Your task to perform on an android device: Open Chrome and go to settings Image 0: 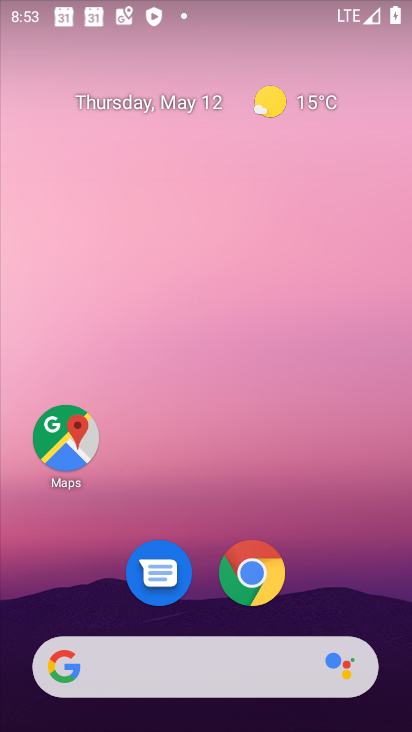
Step 0: click (257, 581)
Your task to perform on an android device: Open Chrome and go to settings Image 1: 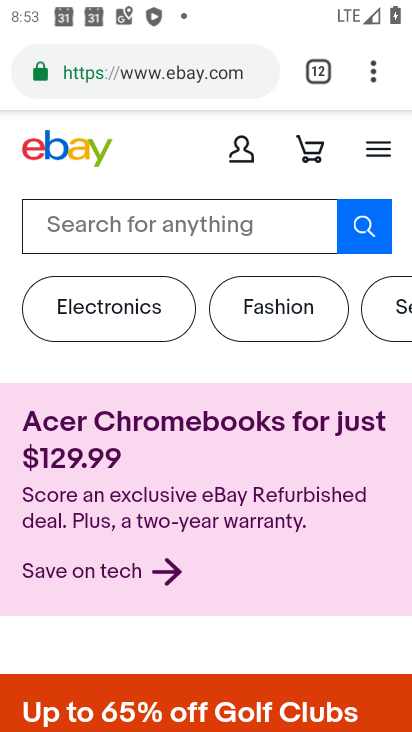
Step 1: click (371, 65)
Your task to perform on an android device: Open Chrome and go to settings Image 2: 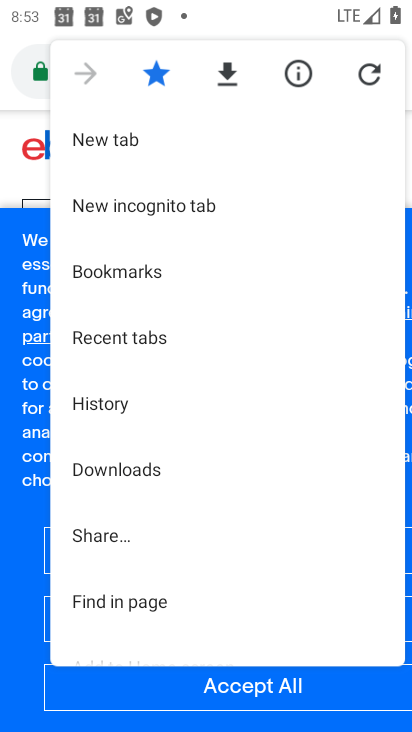
Step 2: drag from (257, 534) to (198, 257)
Your task to perform on an android device: Open Chrome and go to settings Image 3: 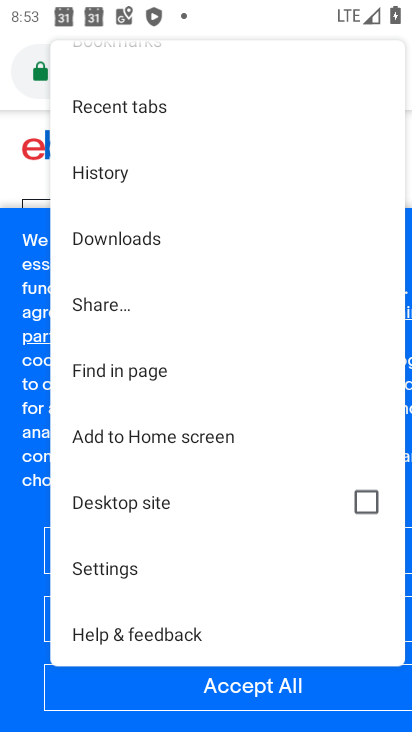
Step 3: click (98, 572)
Your task to perform on an android device: Open Chrome and go to settings Image 4: 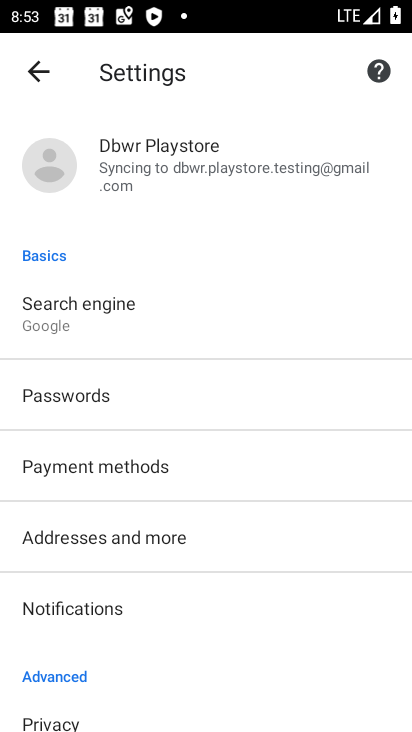
Step 4: task complete